Your task to perform on an android device: Go to Google Image 0: 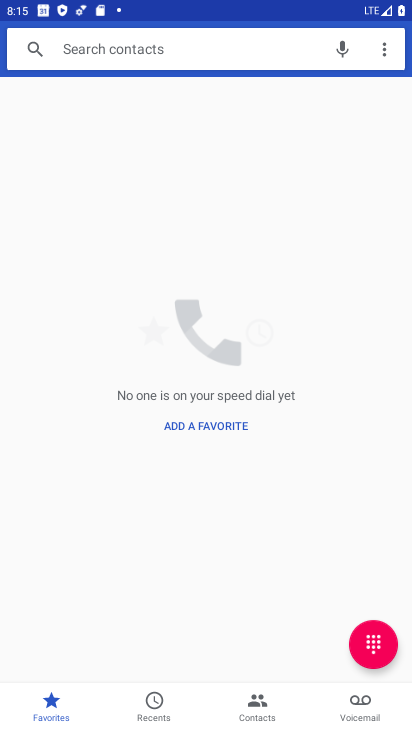
Step 0: press home button
Your task to perform on an android device: Go to Google Image 1: 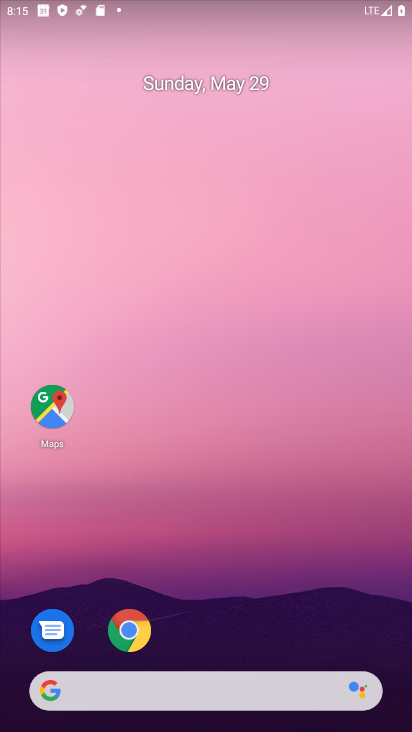
Step 1: drag from (169, 649) to (111, 243)
Your task to perform on an android device: Go to Google Image 2: 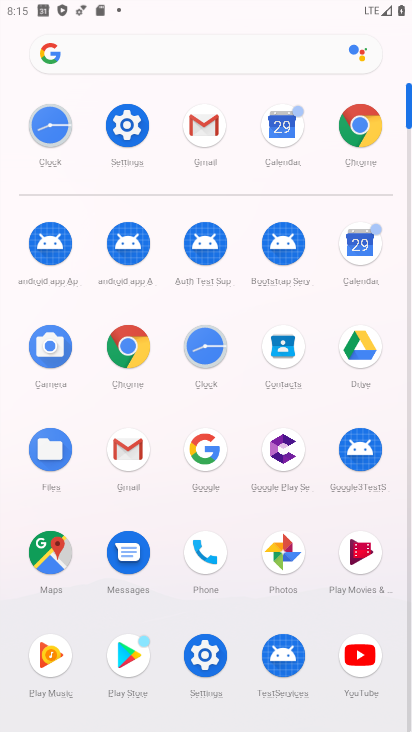
Step 2: click (200, 455)
Your task to perform on an android device: Go to Google Image 3: 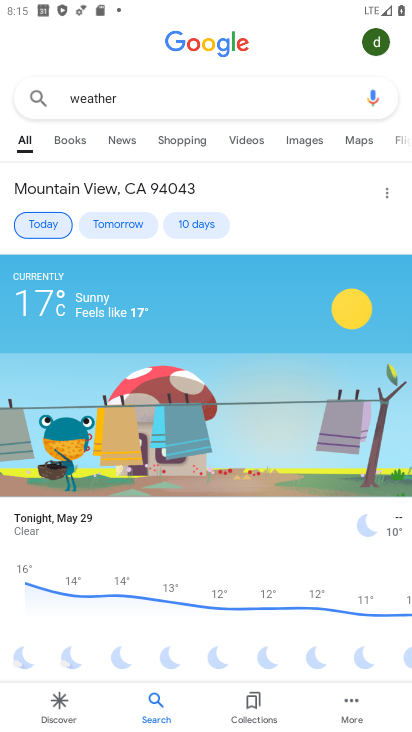
Step 3: task complete